Your task to perform on an android device: Open settings Image 0: 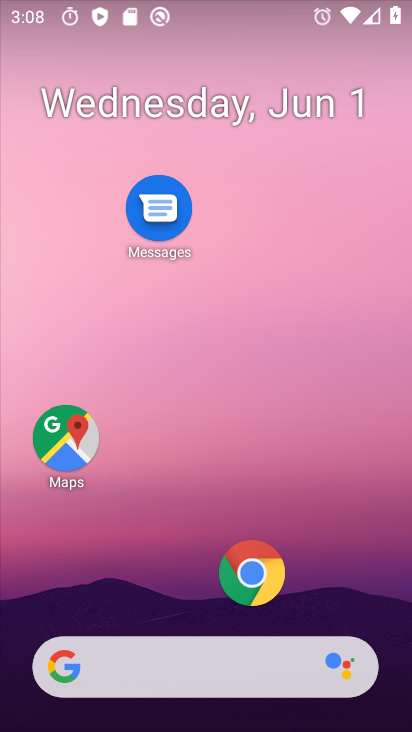
Step 0: drag from (201, 609) to (219, 179)
Your task to perform on an android device: Open settings Image 1: 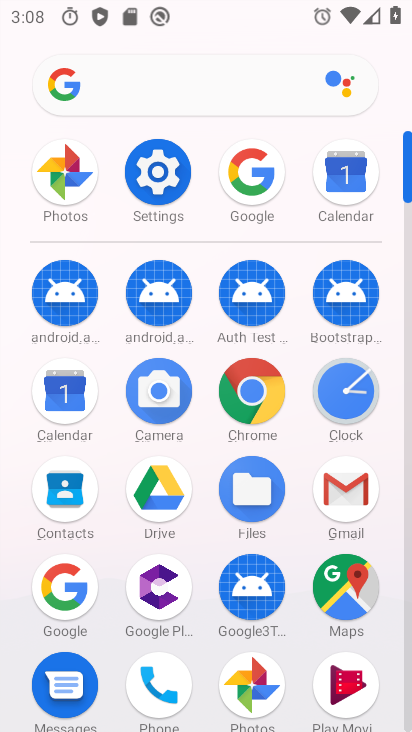
Step 1: click (189, 170)
Your task to perform on an android device: Open settings Image 2: 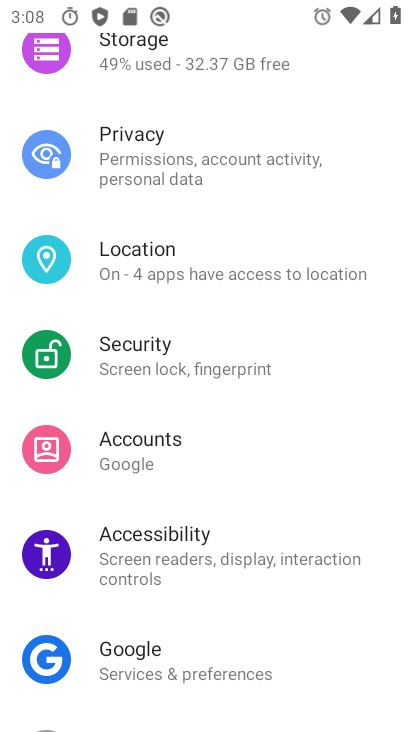
Step 2: task complete